Your task to perform on an android device: Open CNN.com Image 0: 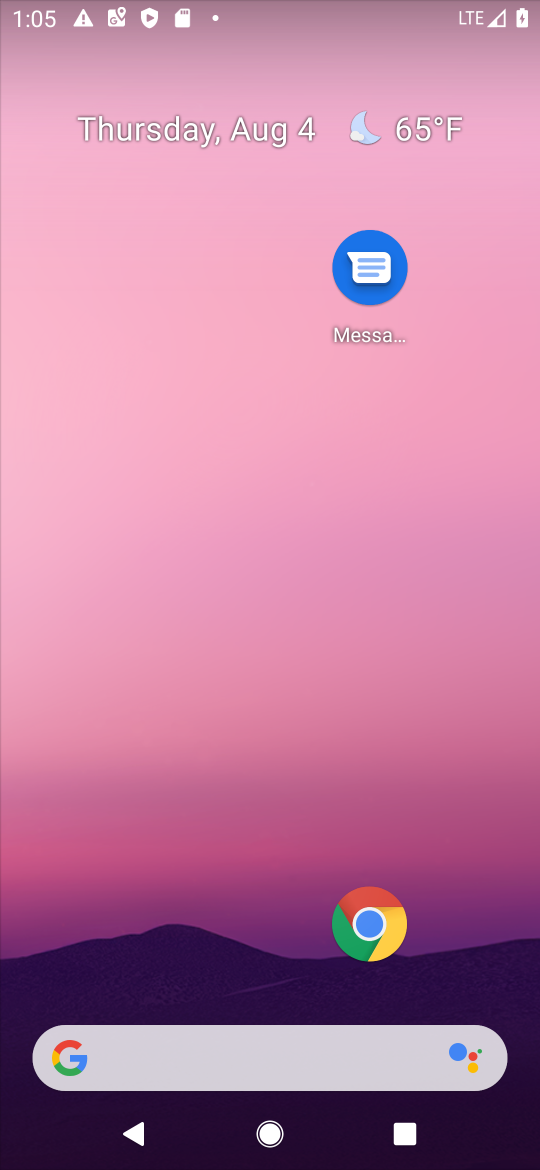
Step 0: click (112, 1055)
Your task to perform on an android device: Open CNN.com Image 1: 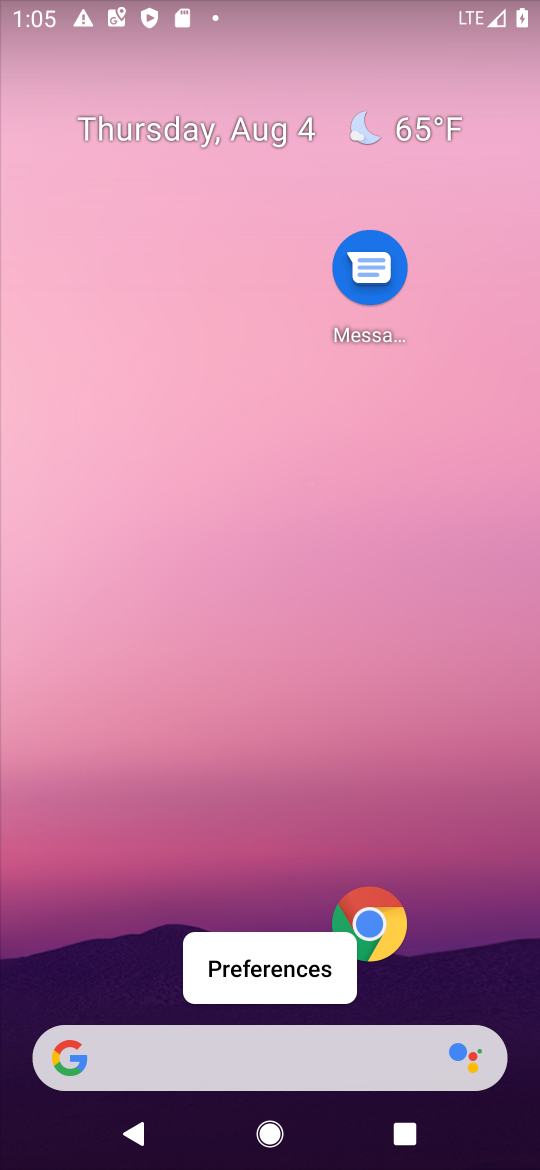
Step 1: click (243, 1062)
Your task to perform on an android device: Open CNN.com Image 2: 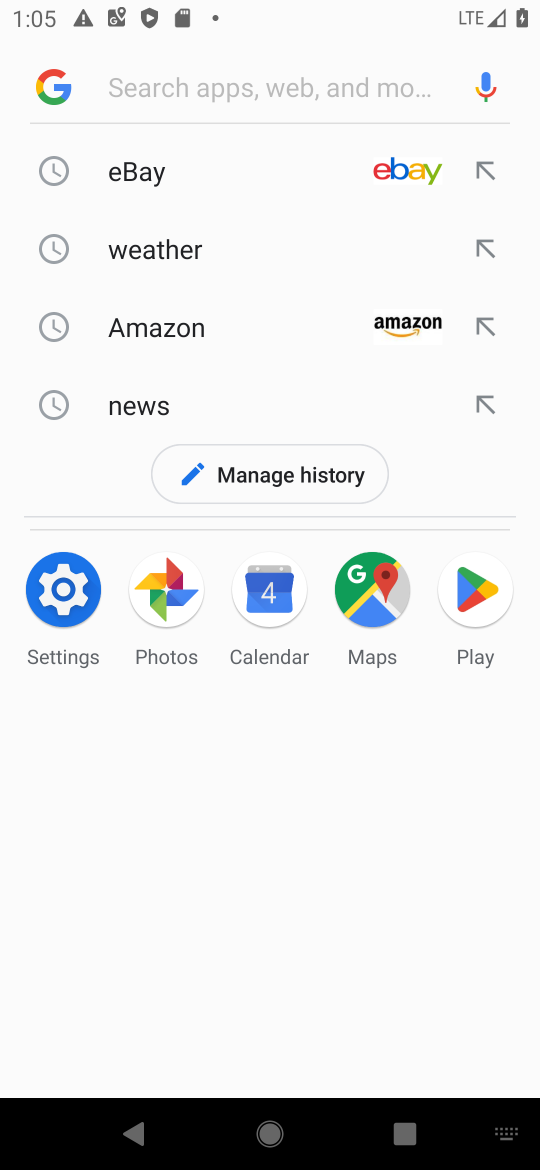
Step 2: type " CNN.com"
Your task to perform on an android device: Open CNN.com Image 3: 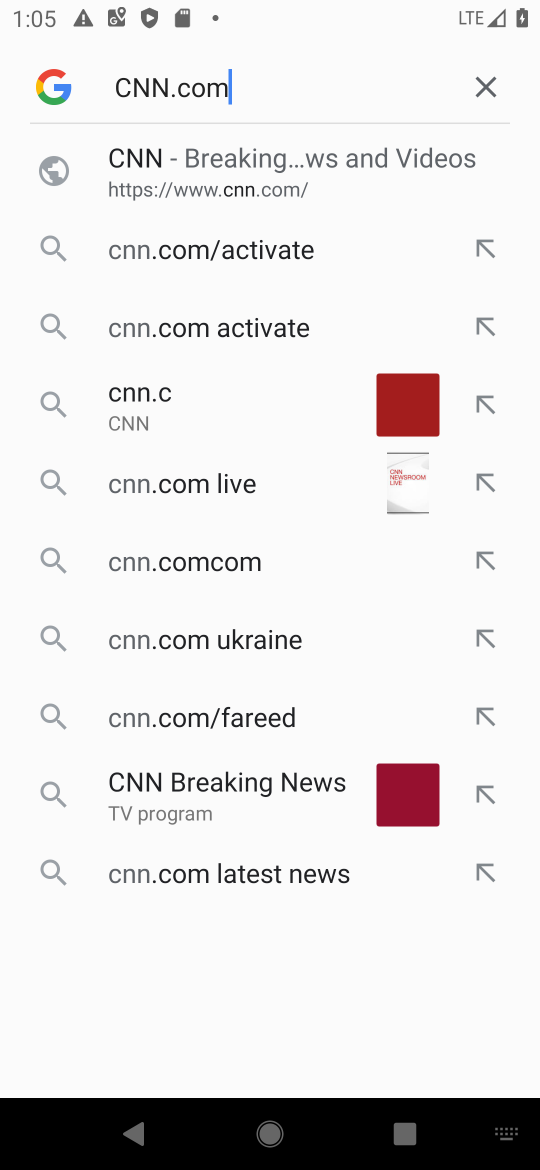
Step 3: type ""
Your task to perform on an android device: Open CNN.com Image 4: 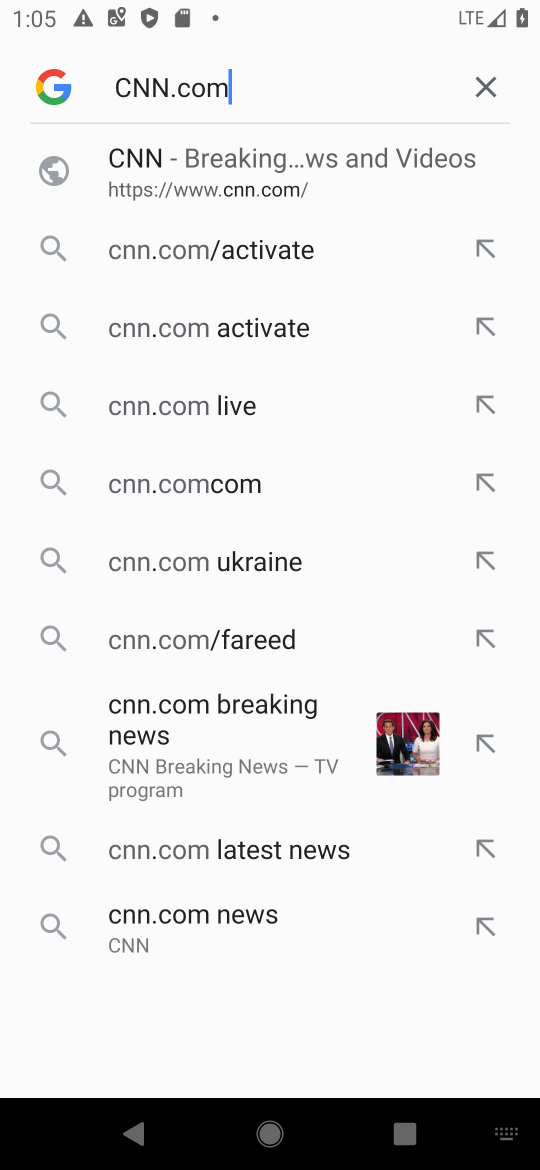
Step 4: click (131, 161)
Your task to perform on an android device: Open CNN.com Image 5: 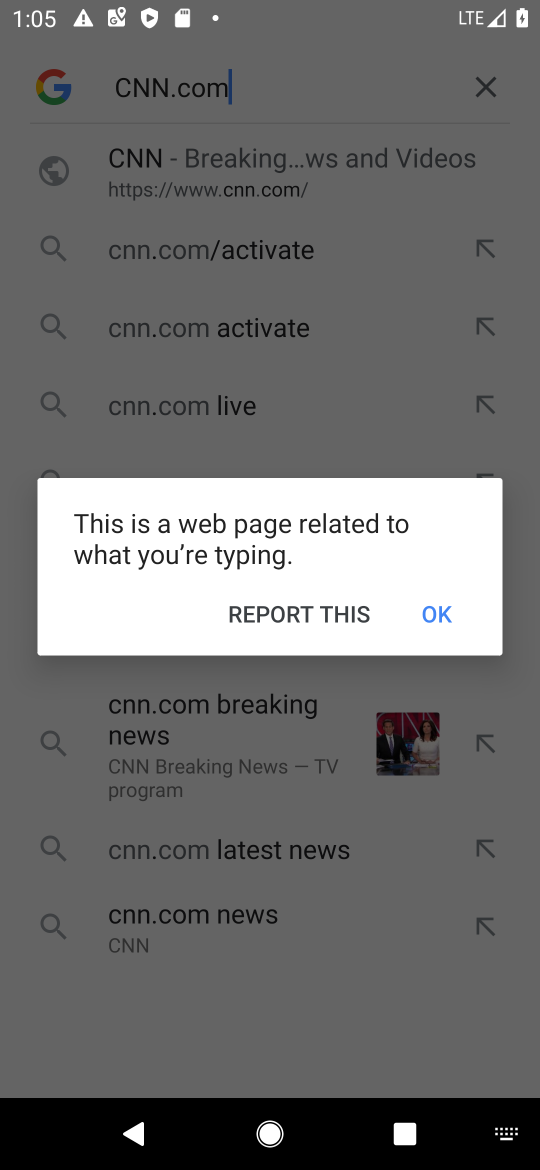
Step 5: task complete